Your task to perform on an android device: Go to Google maps Image 0: 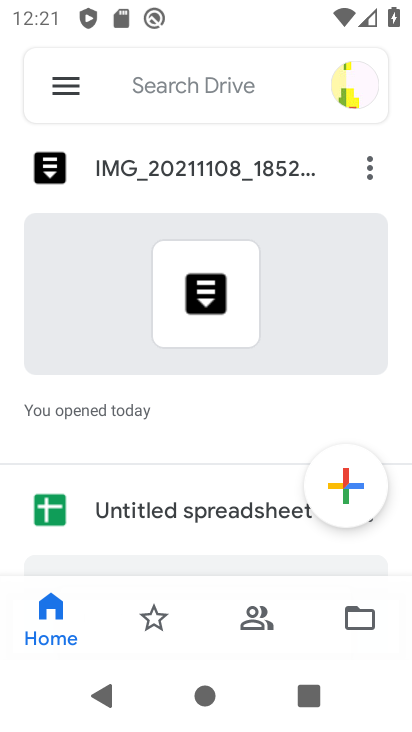
Step 0: press home button
Your task to perform on an android device: Go to Google maps Image 1: 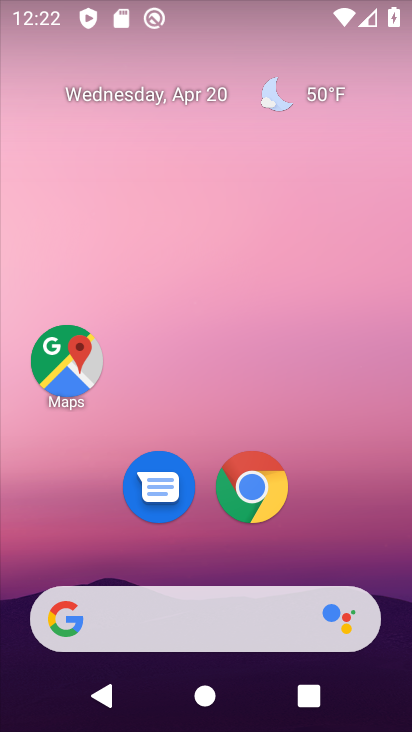
Step 1: click (72, 381)
Your task to perform on an android device: Go to Google maps Image 2: 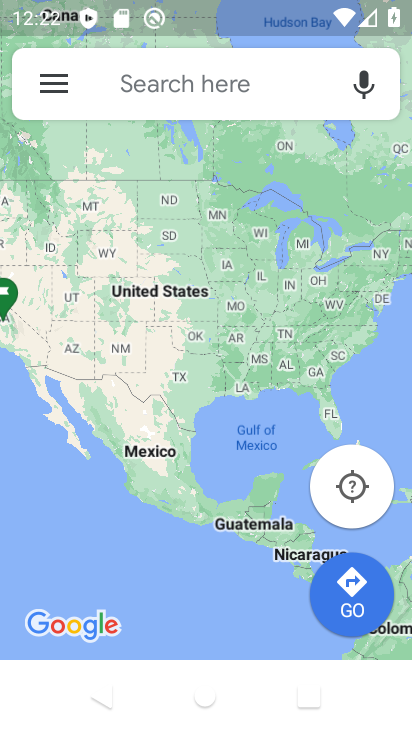
Step 2: task complete